Your task to perform on an android device: Open calendar and show me the third week of next month Image 0: 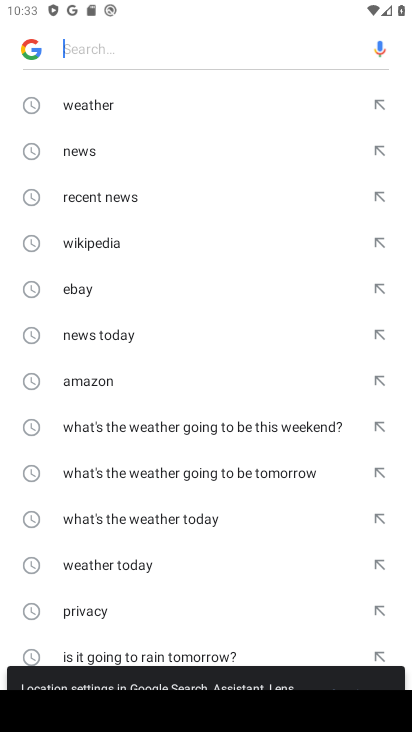
Step 0: press home button
Your task to perform on an android device: Open calendar and show me the third week of next month Image 1: 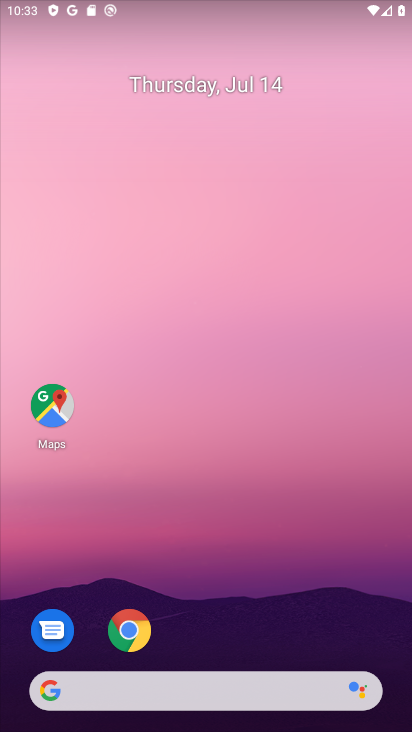
Step 1: drag from (262, 573) to (244, 4)
Your task to perform on an android device: Open calendar and show me the third week of next month Image 2: 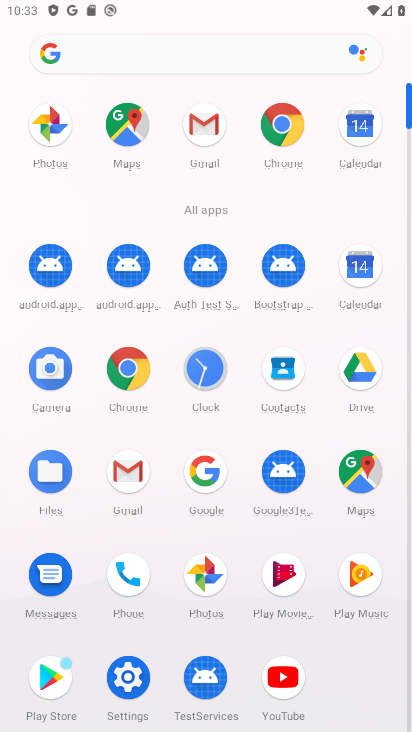
Step 2: click (359, 345)
Your task to perform on an android device: Open calendar and show me the third week of next month Image 3: 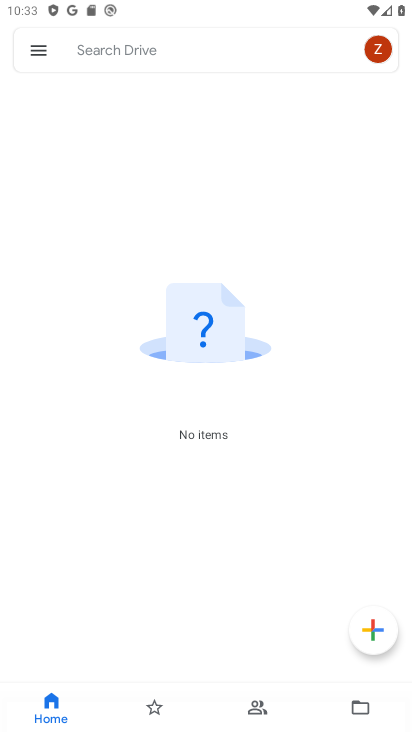
Step 3: press back button
Your task to perform on an android device: Open calendar and show me the third week of next month Image 4: 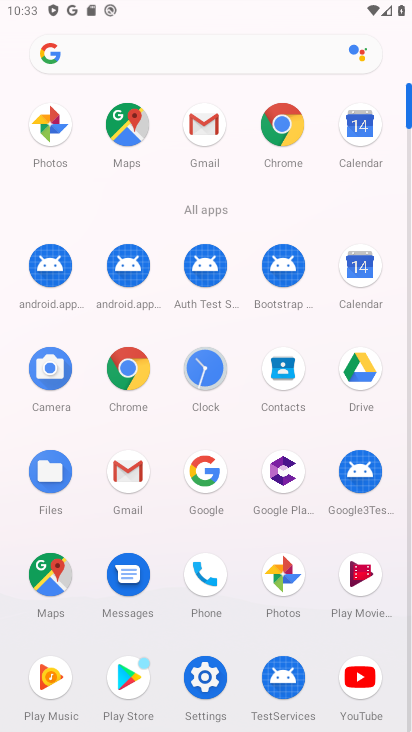
Step 4: click (362, 287)
Your task to perform on an android device: Open calendar and show me the third week of next month Image 5: 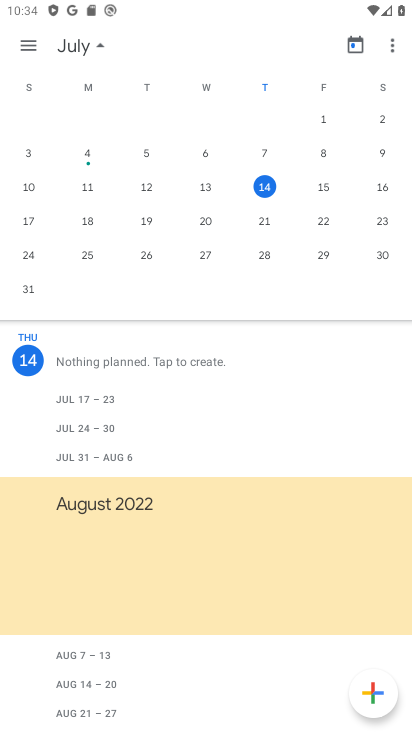
Step 5: drag from (331, 234) to (20, 214)
Your task to perform on an android device: Open calendar and show me the third week of next month Image 6: 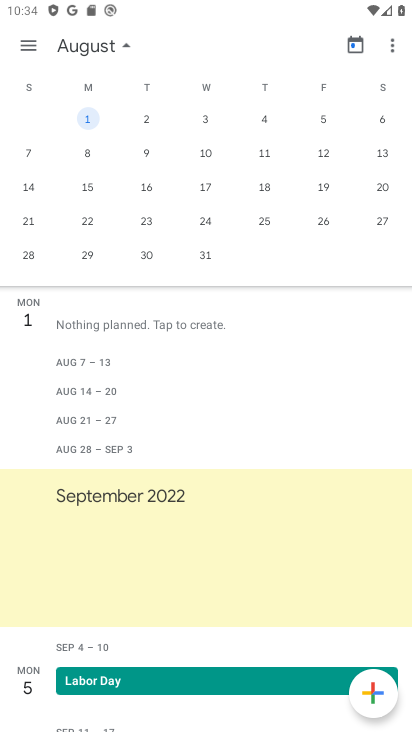
Step 6: click (31, 220)
Your task to perform on an android device: Open calendar and show me the third week of next month Image 7: 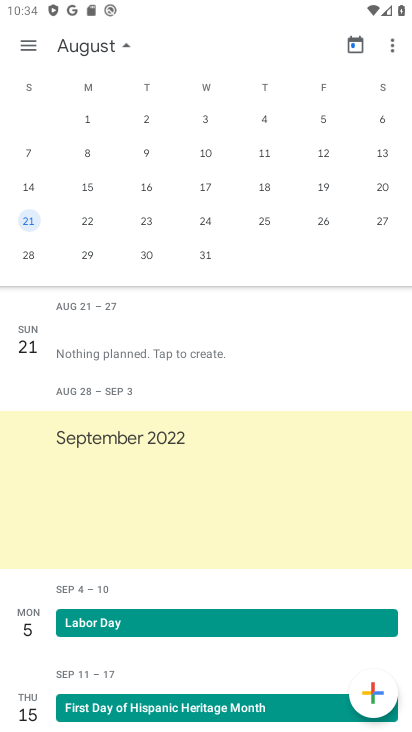
Step 7: task complete